Your task to perform on an android device: When is my next appointment? Image 0: 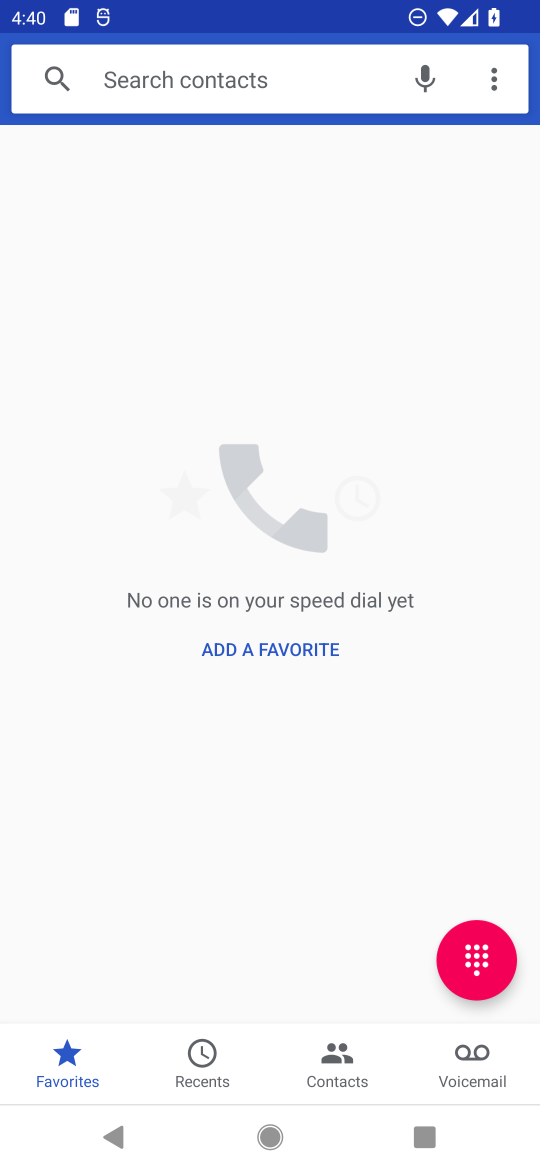
Step 0: press home button
Your task to perform on an android device: When is my next appointment? Image 1: 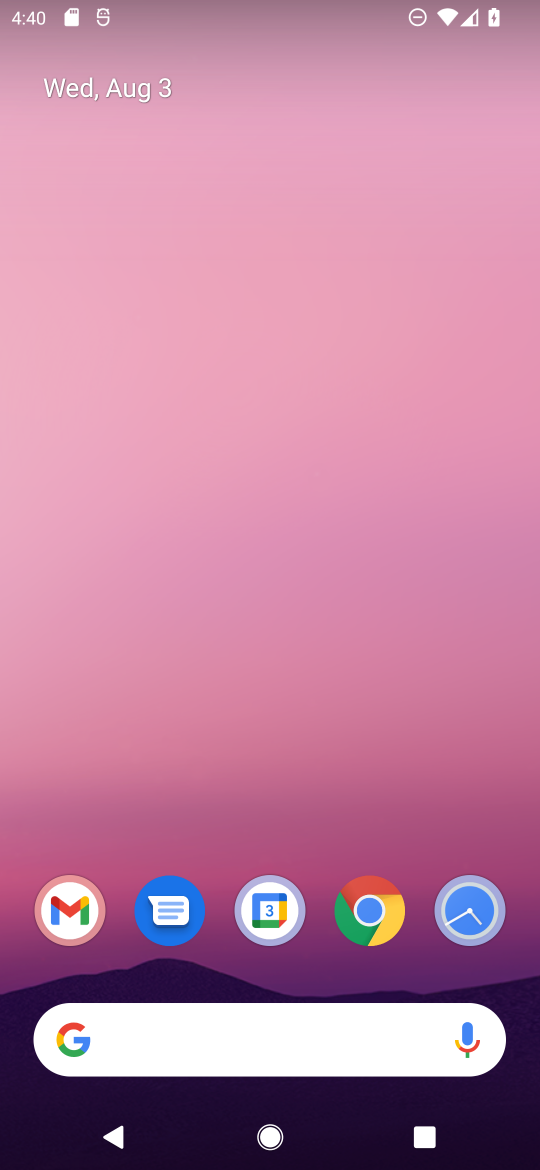
Step 1: drag from (46, 1151) to (256, 182)
Your task to perform on an android device: When is my next appointment? Image 2: 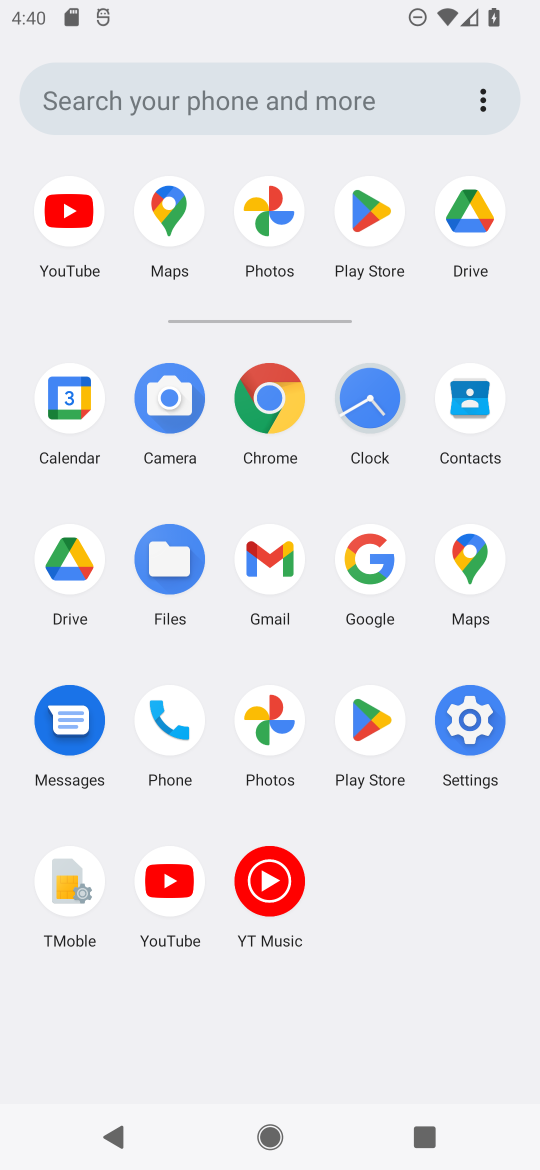
Step 2: click (44, 382)
Your task to perform on an android device: When is my next appointment? Image 3: 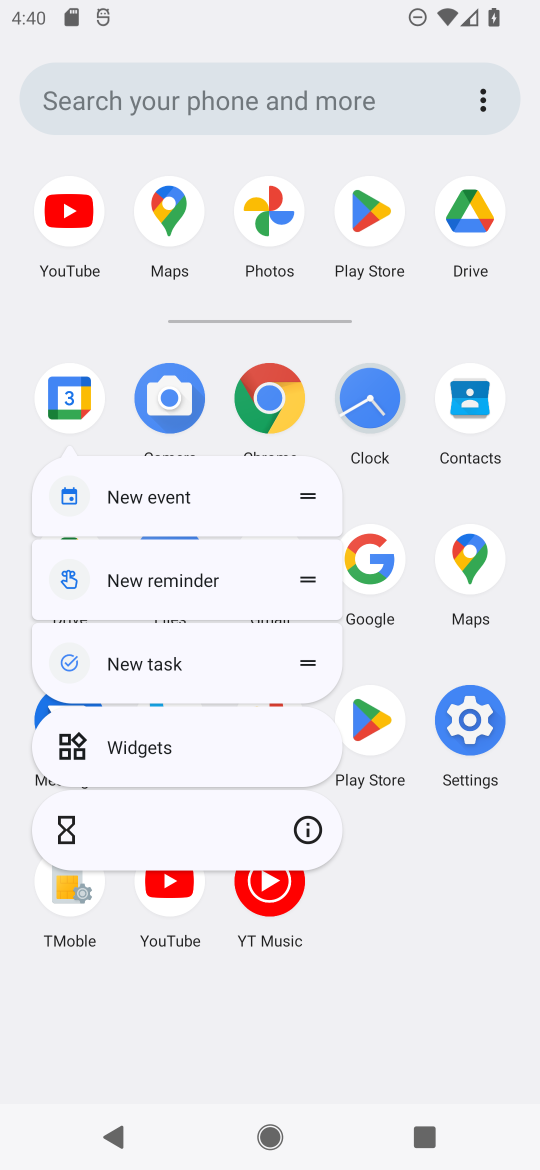
Step 3: click (58, 407)
Your task to perform on an android device: When is my next appointment? Image 4: 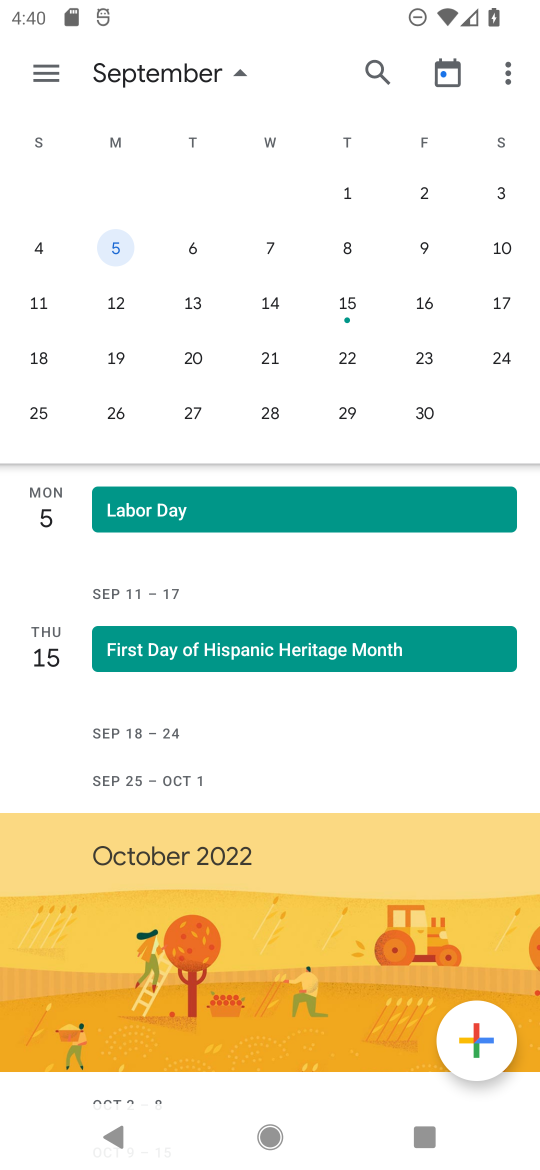
Step 4: drag from (55, 200) to (377, 312)
Your task to perform on an android device: When is my next appointment? Image 5: 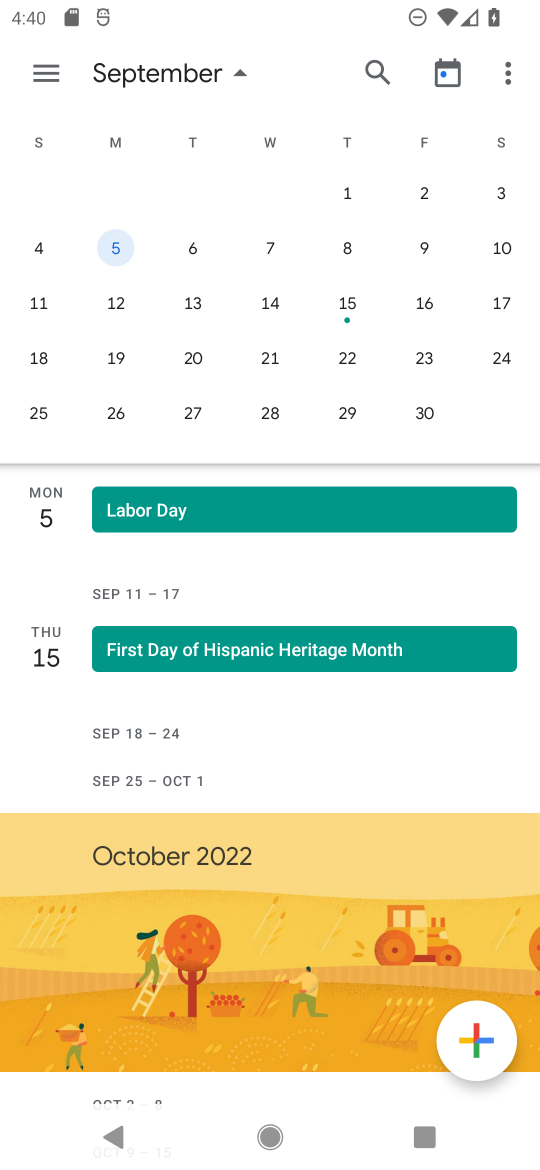
Step 5: drag from (12, 187) to (485, 186)
Your task to perform on an android device: When is my next appointment? Image 6: 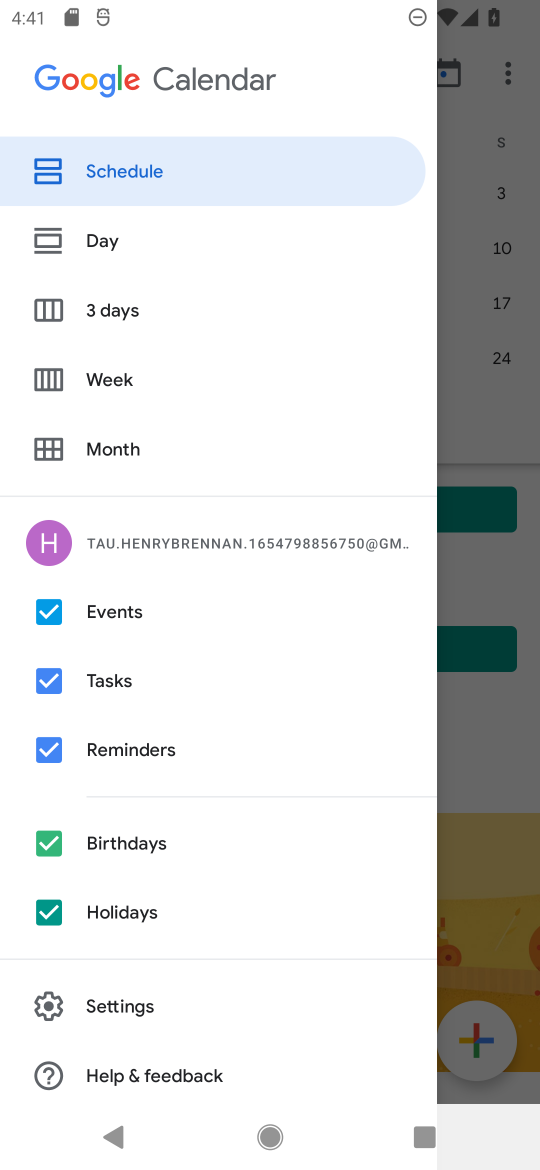
Step 6: click (482, 696)
Your task to perform on an android device: When is my next appointment? Image 7: 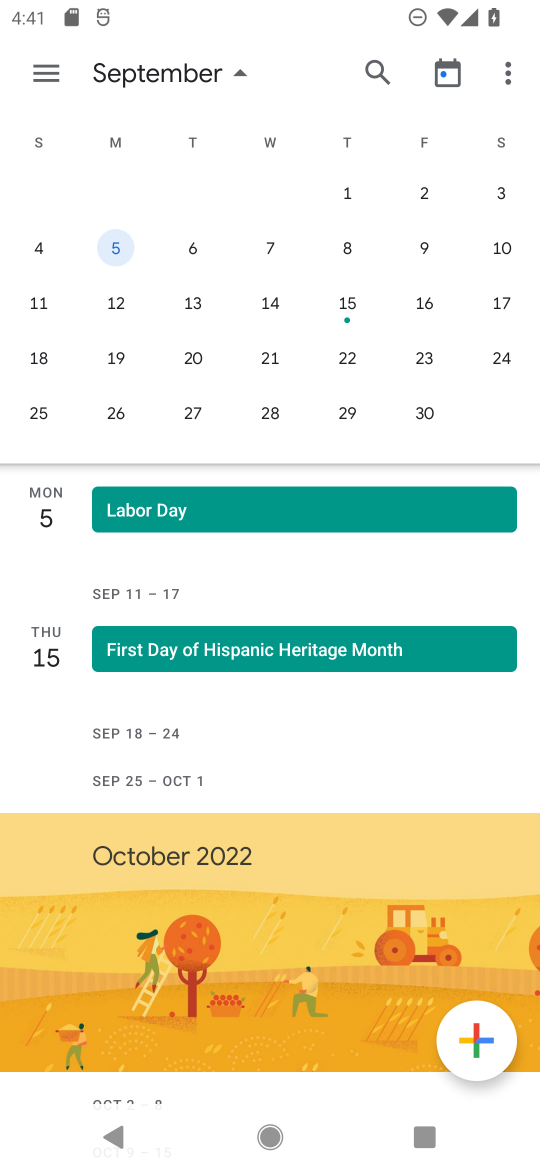
Step 7: task complete